Your task to perform on an android device: Open Google Chrome Image 0: 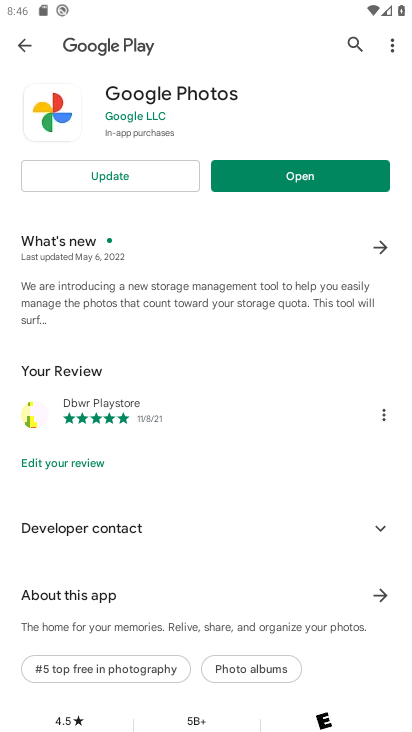
Step 0: press home button
Your task to perform on an android device: Open Google Chrome Image 1: 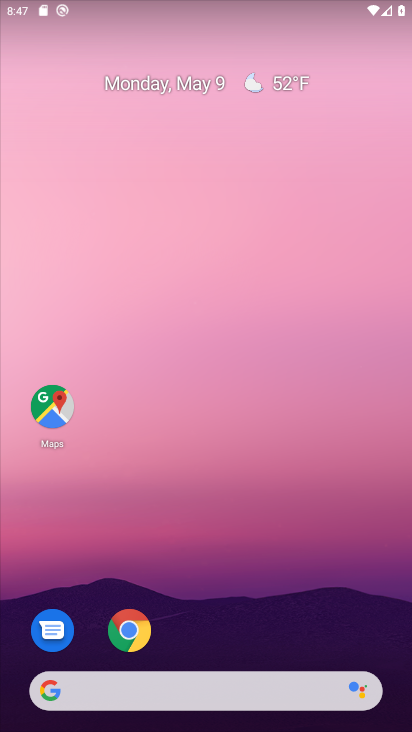
Step 1: click (125, 622)
Your task to perform on an android device: Open Google Chrome Image 2: 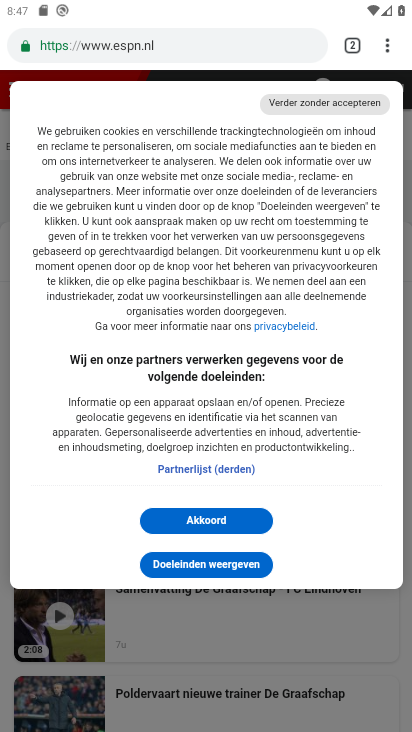
Step 2: task complete